Your task to perform on an android device: turn on bluetooth scan Image 0: 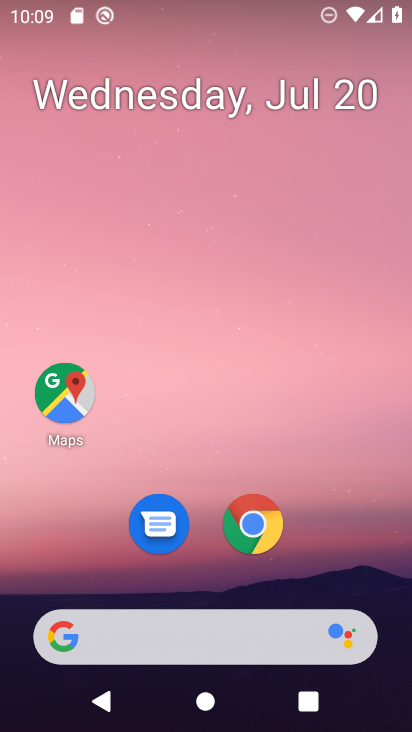
Step 0: drag from (179, 633) to (291, 161)
Your task to perform on an android device: turn on bluetooth scan Image 1: 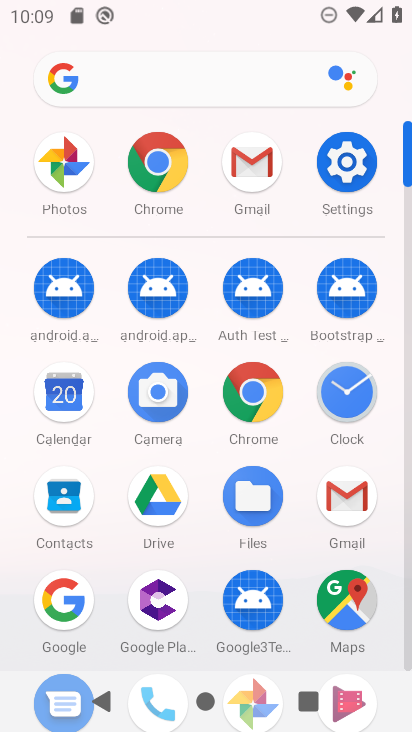
Step 1: click (342, 173)
Your task to perform on an android device: turn on bluetooth scan Image 2: 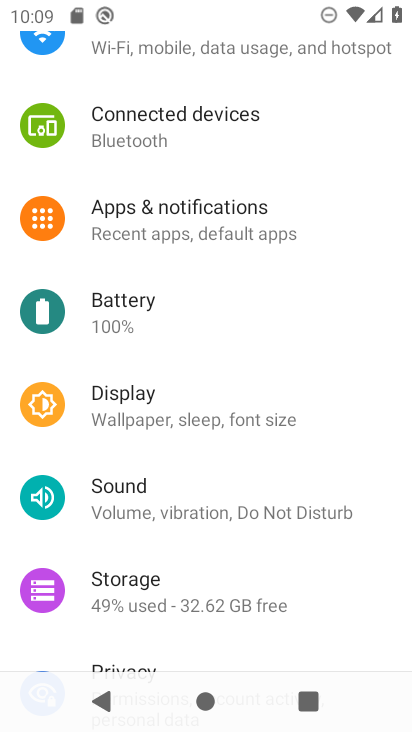
Step 2: drag from (211, 585) to (296, 193)
Your task to perform on an android device: turn on bluetooth scan Image 3: 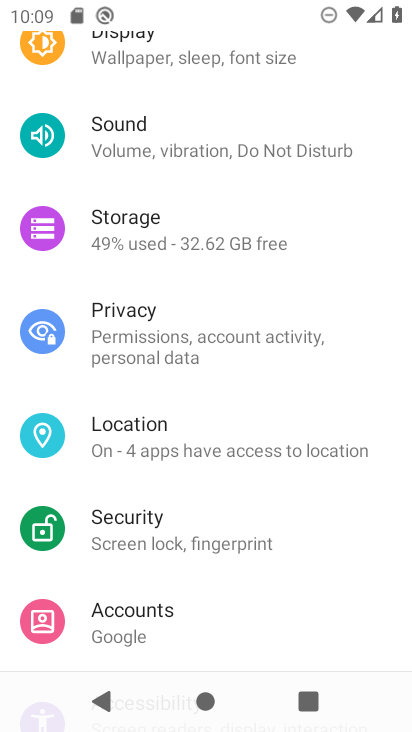
Step 3: click (130, 433)
Your task to perform on an android device: turn on bluetooth scan Image 4: 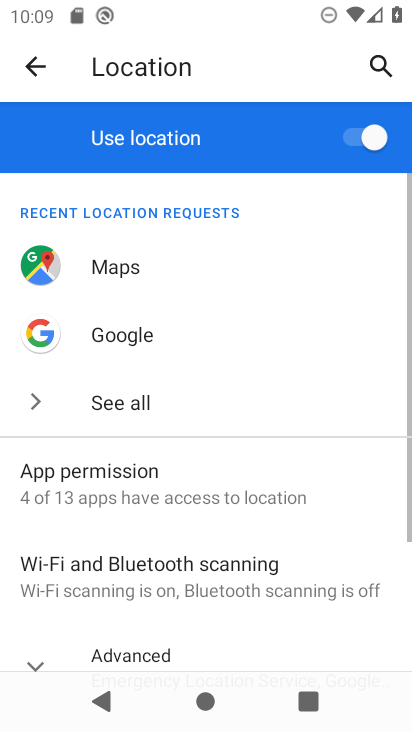
Step 4: click (235, 587)
Your task to perform on an android device: turn on bluetooth scan Image 5: 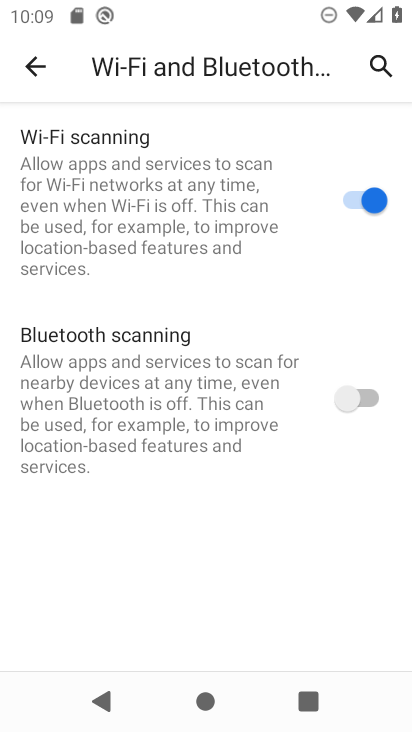
Step 5: click (370, 396)
Your task to perform on an android device: turn on bluetooth scan Image 6: 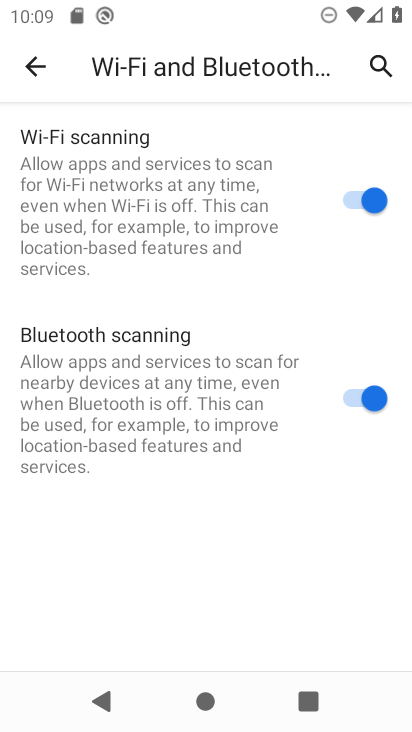
Step 6: task complete